Your task to perform on an android device: toggle show notifications on the lock screen Image 0: 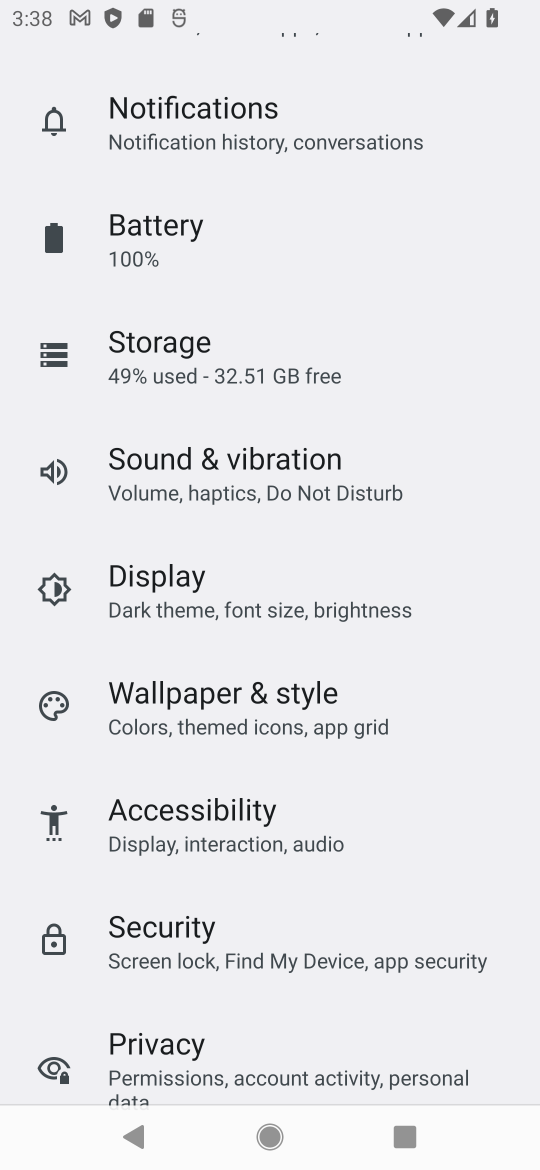
Step 0: press home button
Your task to perform on an android device: toggle show notifications on the lock screen Image 1: 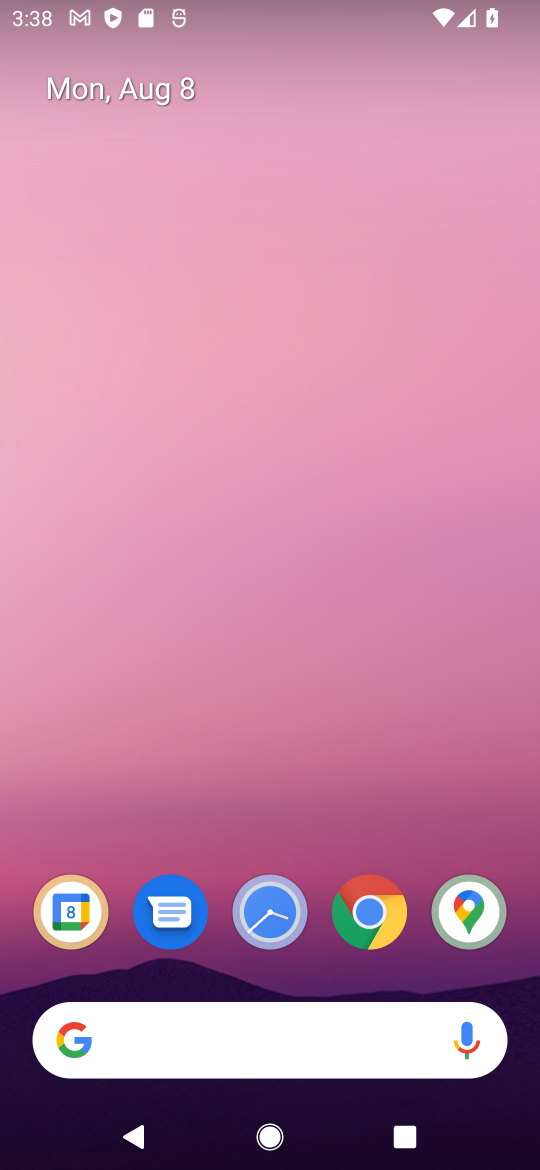
Step 1: drag from (69, 1014) to (310, 235)
Your task to perform on an android device: toggle show notifications on the lock screen Image 2: 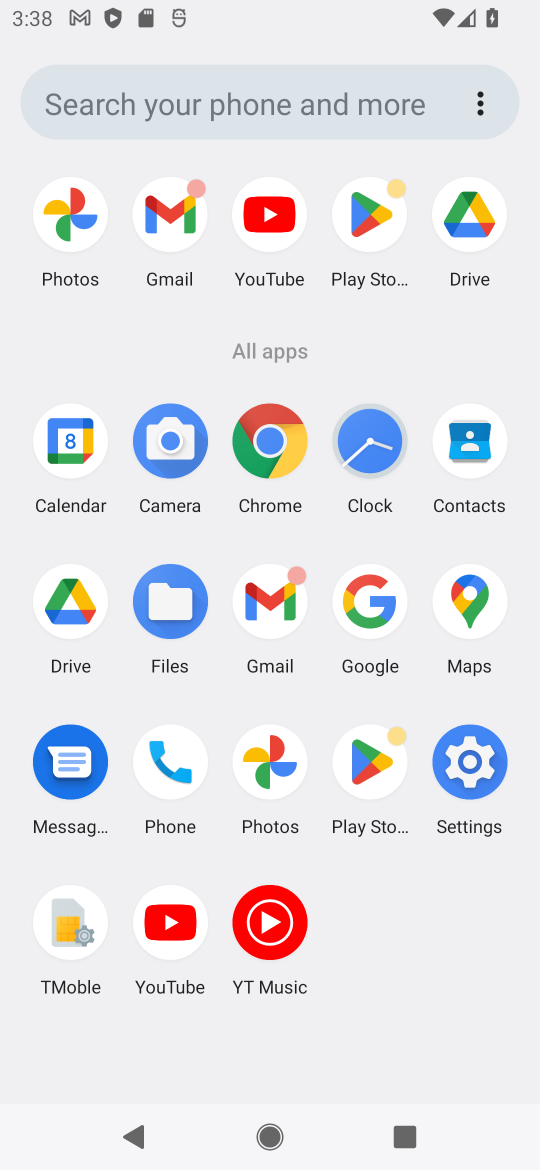
Step 2: click (458, 768)
Your task to perform on an android device: toggle show notifications on the lock screen Image 3: 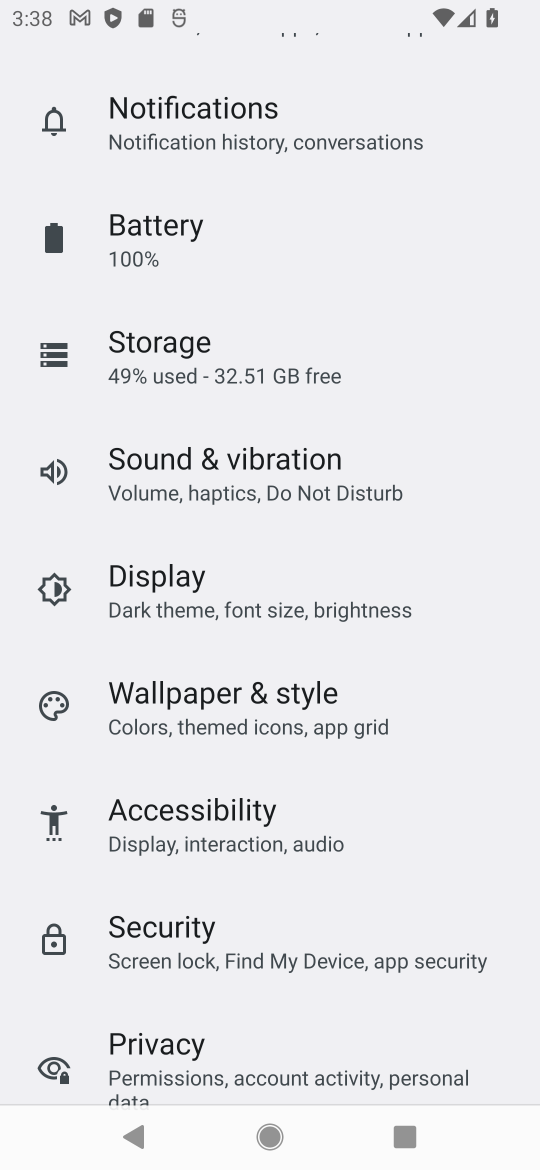
Step 3: click (327, 107)
Your task to perform on an android device: toggle show notifications on the lock screen Image 4: 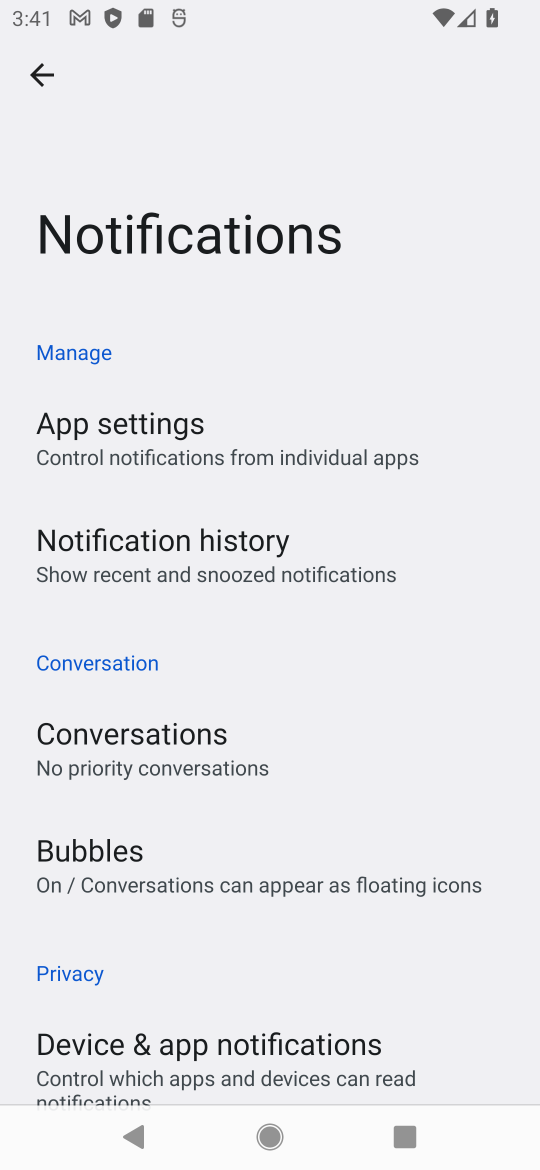
Step 4: press home button
Your task to perform on an android device: toggle show notifications on the lock screen Image 5: 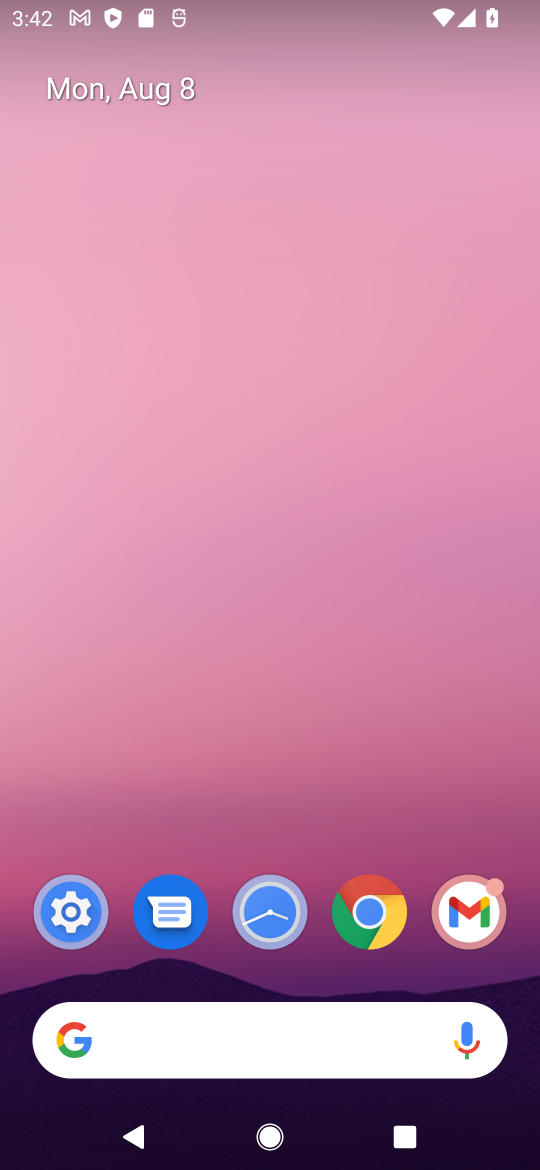
Step 5: drag from (85, 817) to (402, 101)
Your task to perform on an android device: toggle show notifications on the lock screen Image 6: 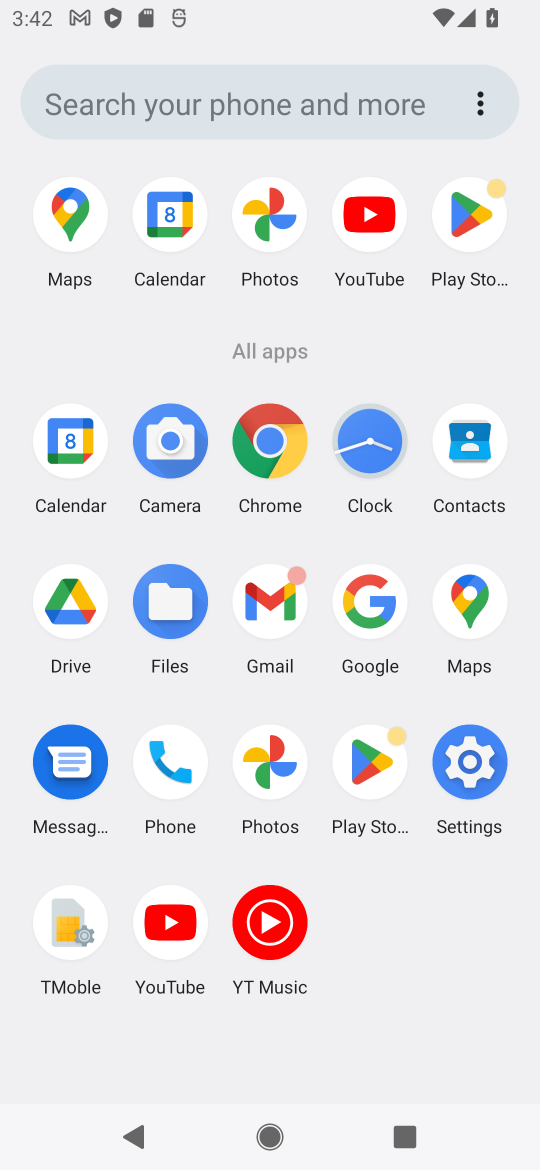
Step 6: click (474, 787)
Your task to perform on an android device: toggle show notifications on the lock screen Image 7: 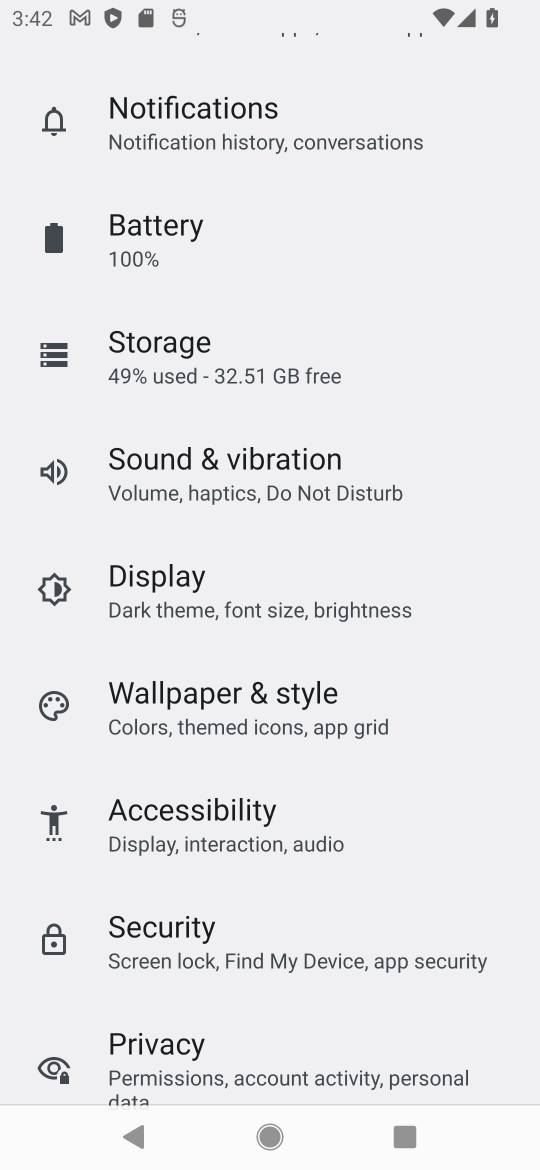
Step 7: click (213, 139)
Your task to perform on an android device: toggle show notifications on the lock screen Image 8: 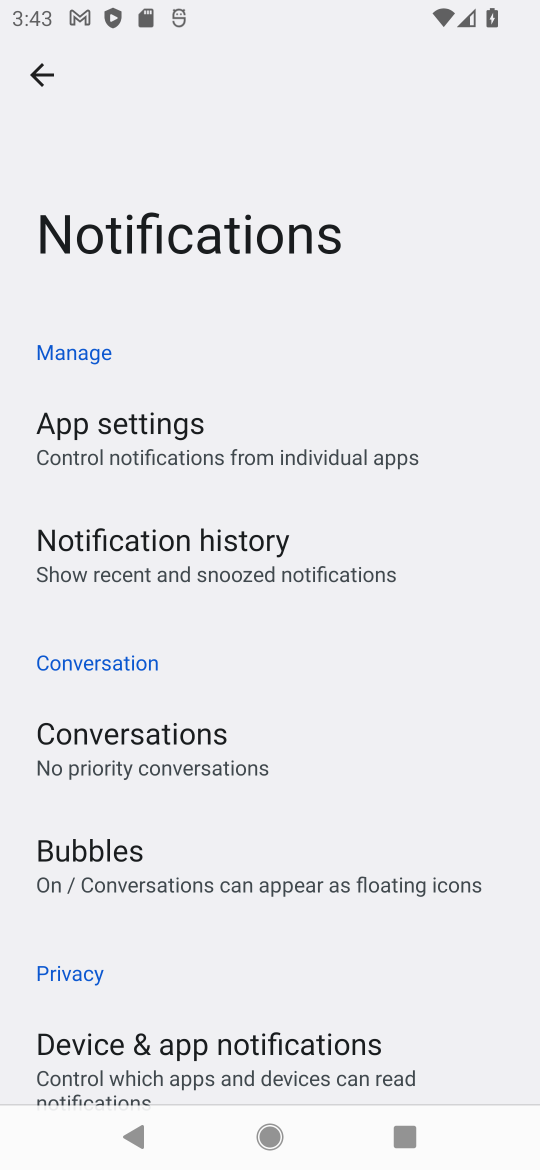
Step 8: click (176, 1045)
Your task to perform on an android device: toggle show notifications on the lock screen Image 9: 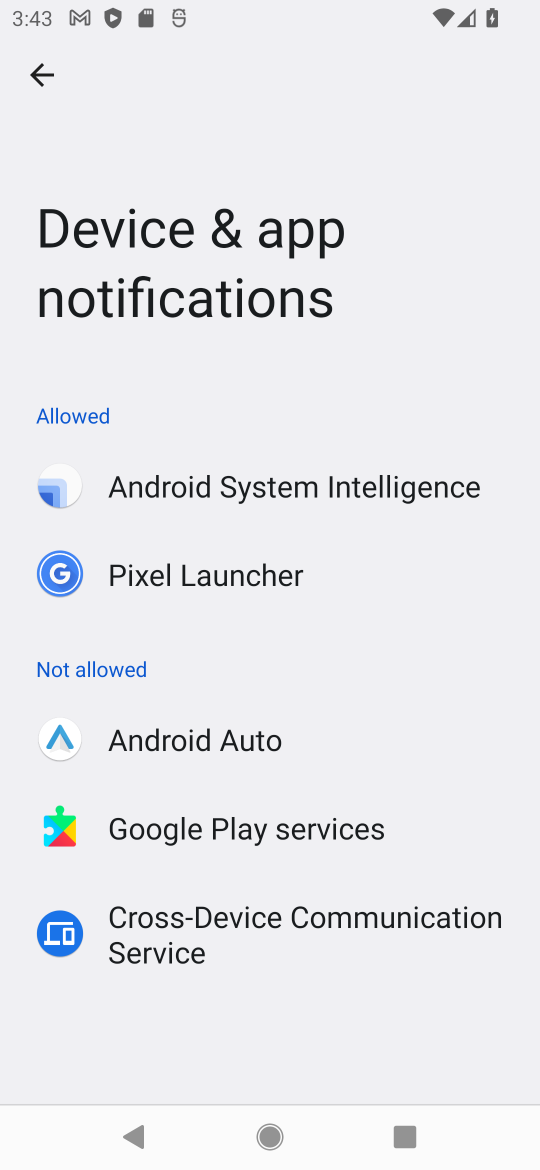
Step 9: press back button
Your task to perform on an android device: toggle show notifications on the lock screen Image 10: 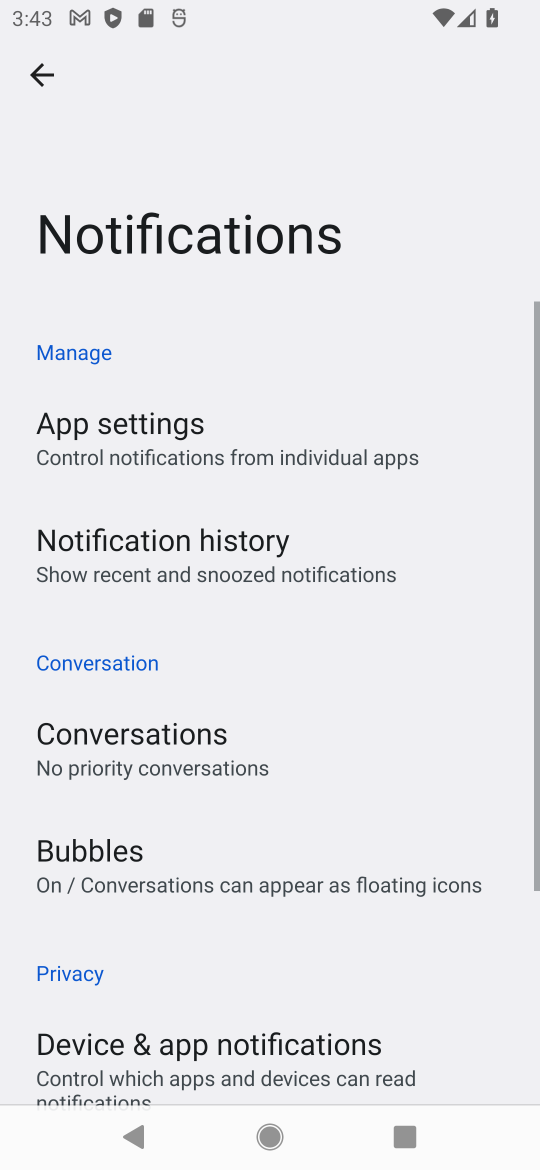
Step 10: drag from (10, 921) to (238, 238)
Your task to perform on an android device: toggle show notifications on the lock screen Image 11: 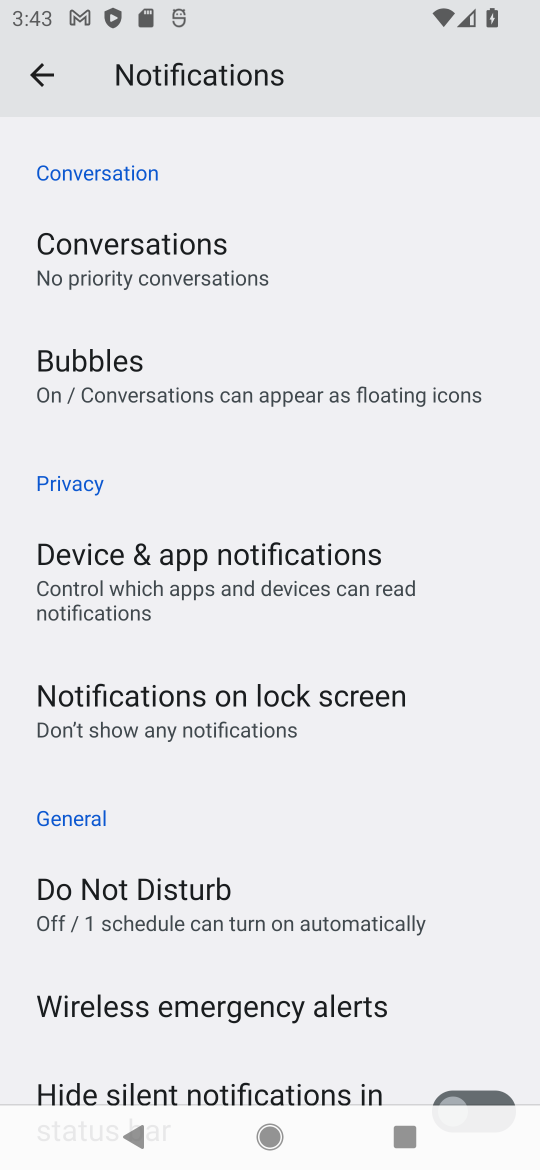
Step 11: click (160, 743)
Your task to perform on an android device: toggle show notifications on the lock screen Image 12: 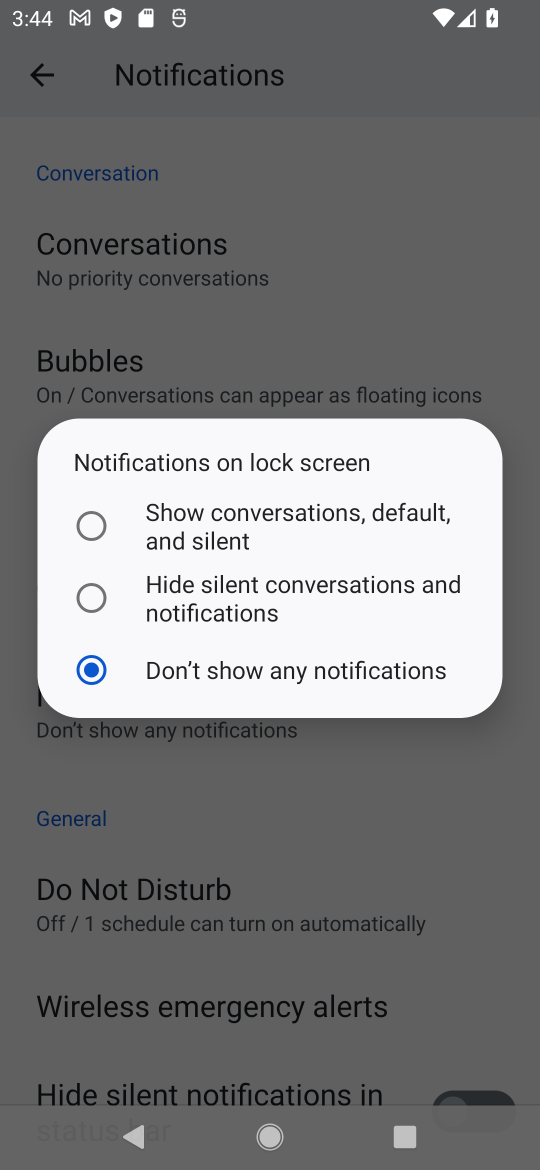
Step 12: click (207, 518)
Your task to perform on an android device: toggle show notifications on the lock screen Image 13: 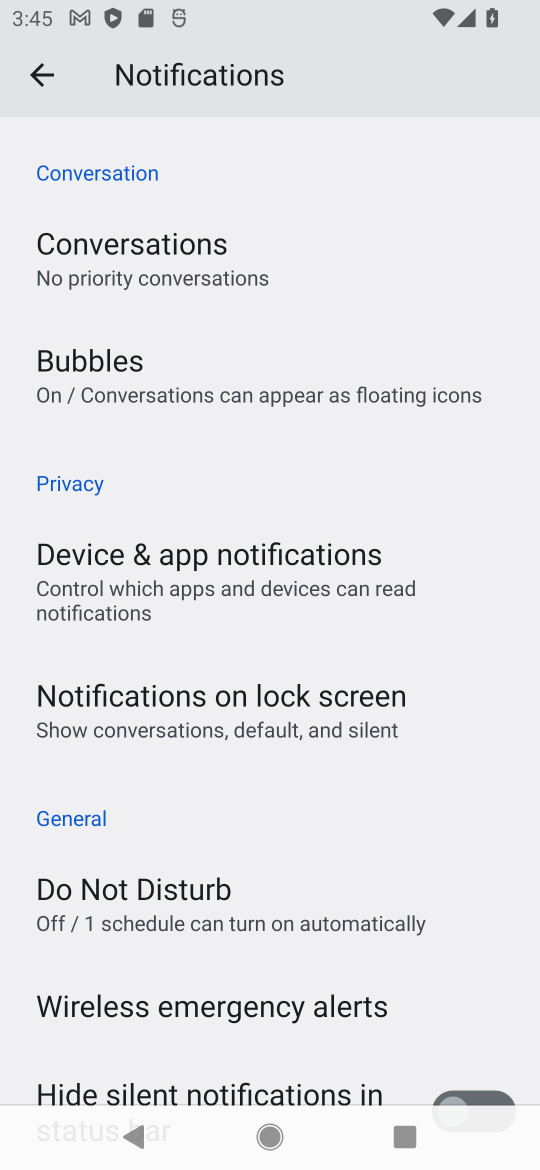
Step 13: task complete